Your task to perform on an android device: Open Youtube and go to "Your channel" Image 0: 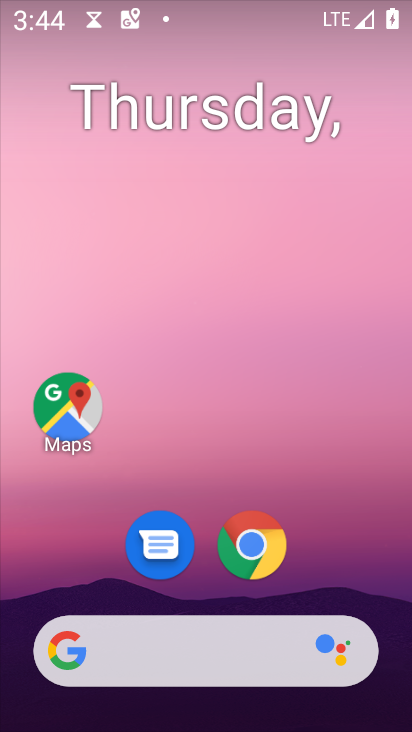
Step 0: drag from (339, 554) to (336, 42)
Your task to perform on an android device: Open Youtube and go to "Your channel" Image 1: 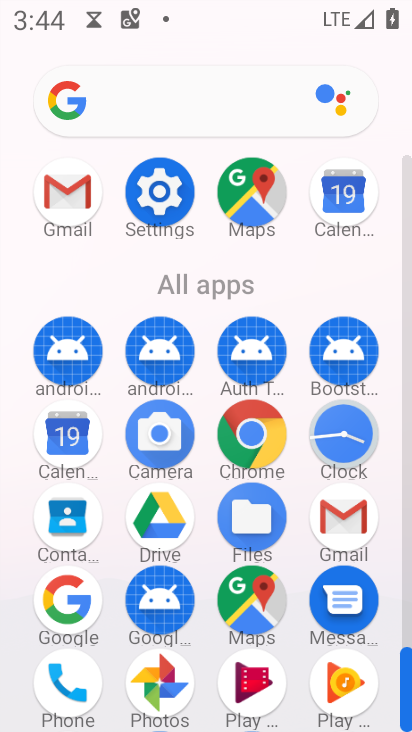
Step 1: drag from (392, 557) to (412, 166)
Your task to perform on an android device: Open Youtube and go to "Your channel" Image 2: 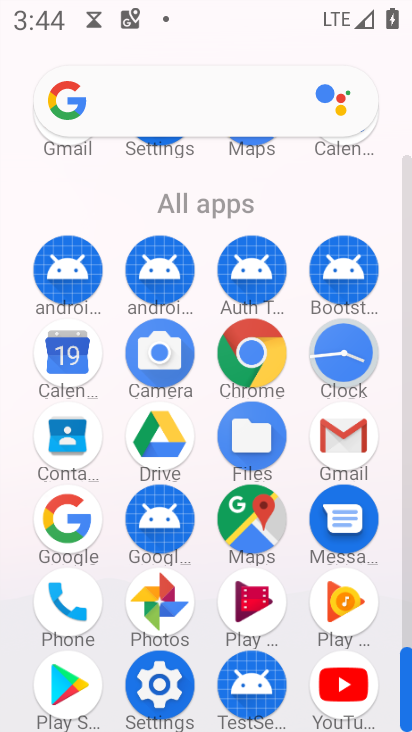
Step 2: click (365, 683)
Your task to perform on an android device: Open Youtube and go to "Your channel" Image 3: 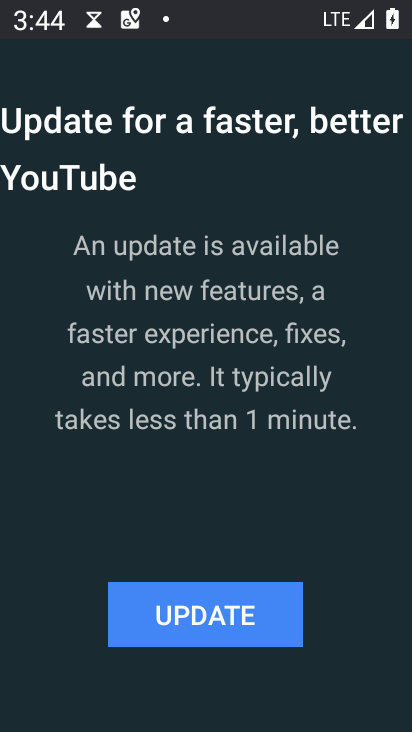
Step 3: click (238, 642)
Your task to perform on an android device: Open Youtube and go to "Your channel" Image 4: 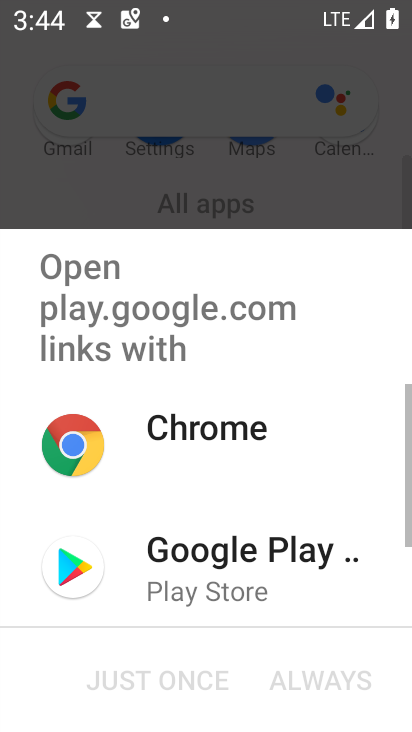
Step 4: click (147, 575)
Your task to perform on an android device: Open Youtube and go to "Your channel" Image 5: 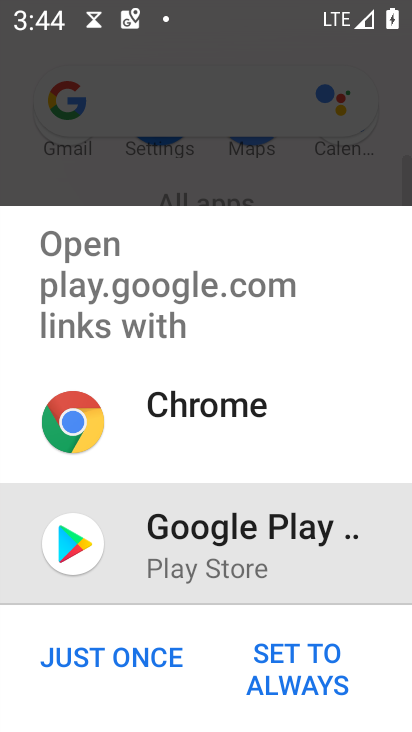
Step 5: click (144, 648)
Your task to perform on an android device: Open Youtube and go to "Your channel" Image 6: 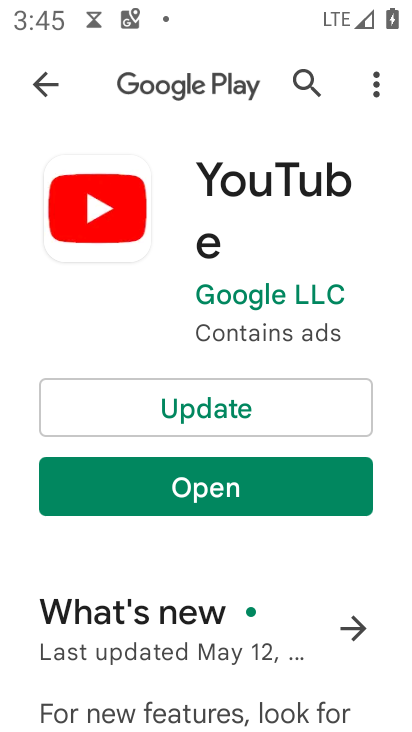
Step 6: click (189, 495)
Your task to perform on an android device: Open Youtube and go to "Your channel" Image 7: 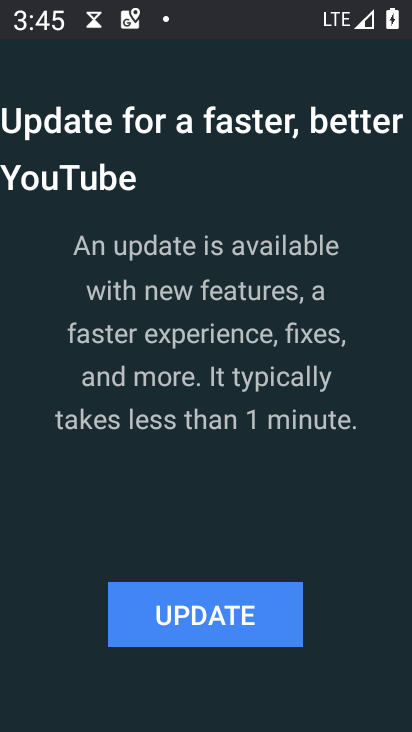
Step 7: click (207, 624)
Your task to perform on an android device: Open Youtube and go to "Your channel" Image 8: 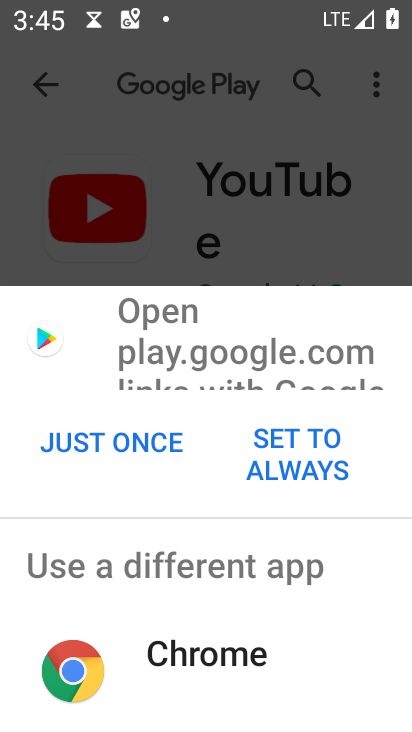
Step 8: click (116, 464)
Your task to perform on an android device: Open Youtube and go to "Your channel" Image 9: 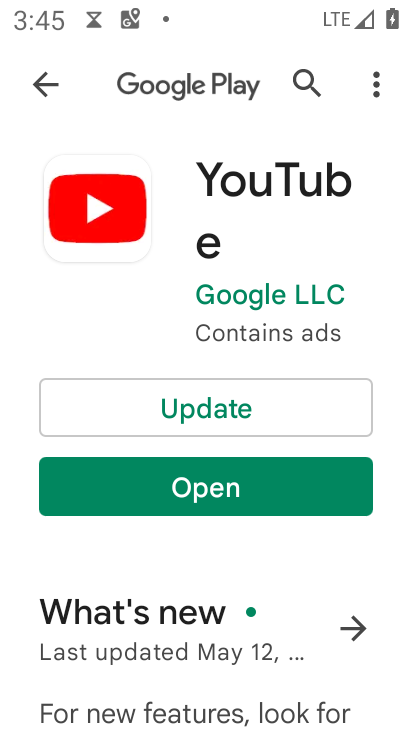
Step 9: click (211, 494)
Your task to perform on an android device: Open Youtube and go to "Your channel" Image 10: 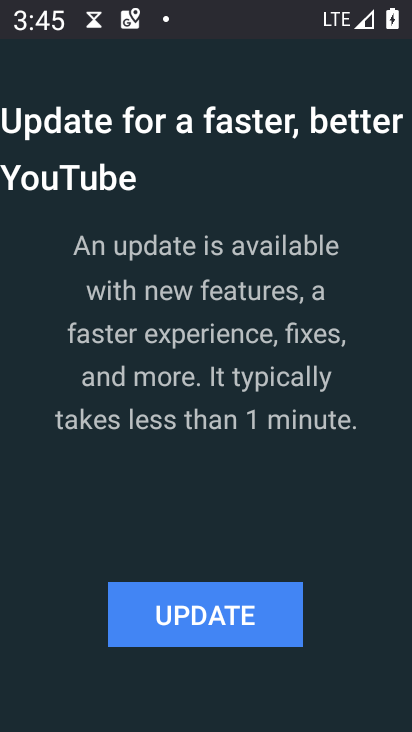
Step 10: click (214, 630)
Your task to perform on an android device: Open Youtube and go to "Your channel" Image 11: 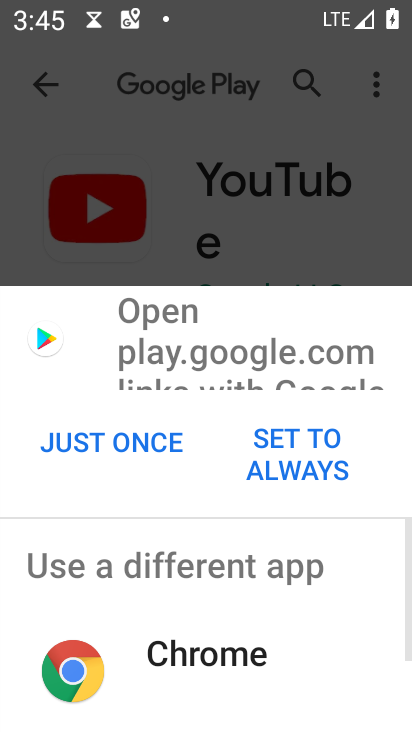
Step 11: click (129, 449)
Your task to perform on an android device: Open Youtube and go to "Your channel" Image 12: 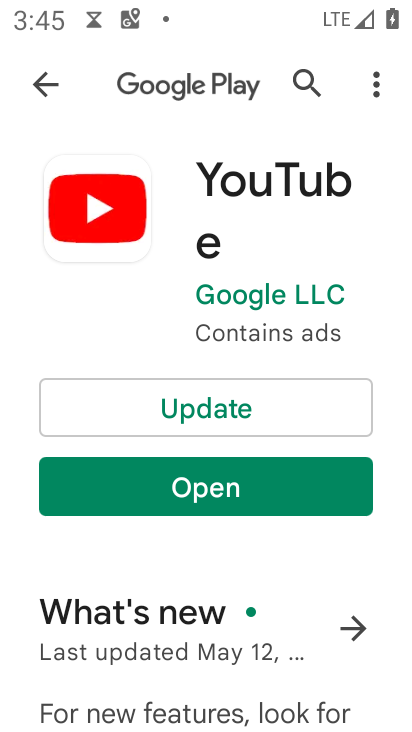
Step 12: click (157, 408)
Your task to perform on an android device: Open Youtube and go to "Your channel" Image 13: 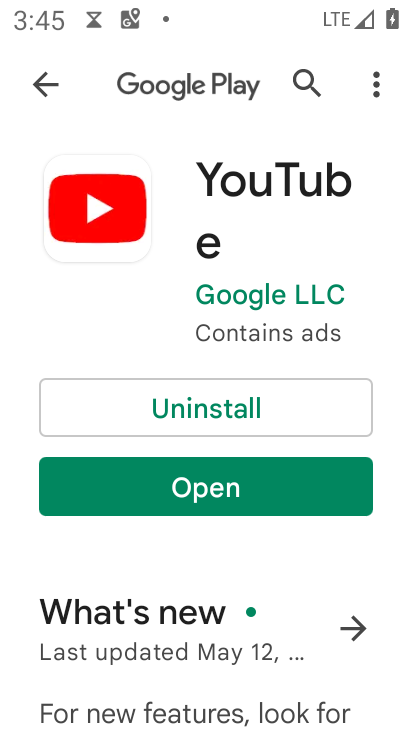
Step 13: click (208, 483)
Your task to perform on an android device: Open Youtube and go to "Your channel" Image 14: 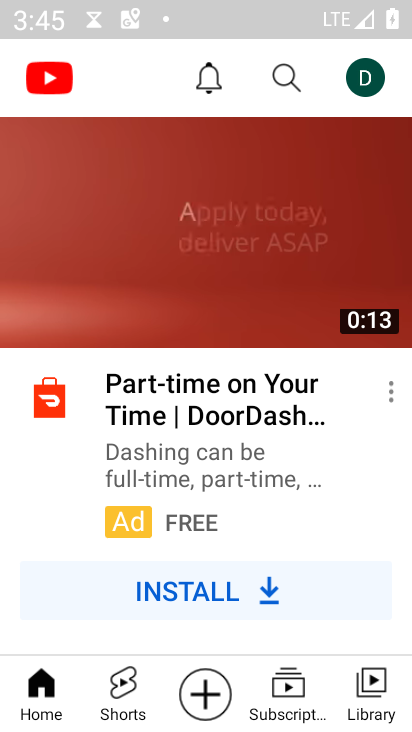
Step 14: drag from (172, 506) to (242, 182)
Your task to perform on an android device: Open Youtube and go to "Your channel" Image 15: 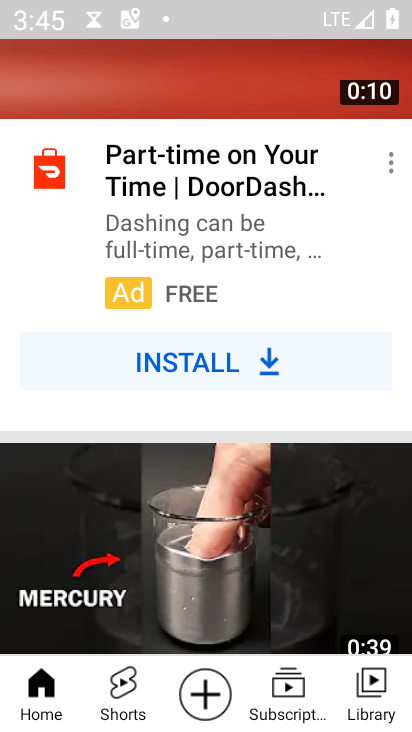
Step 15: drag from (346, 246) to (372, 582)
Your task to perform on an android device: Open Youtube and go to "Your channel" Image 16: 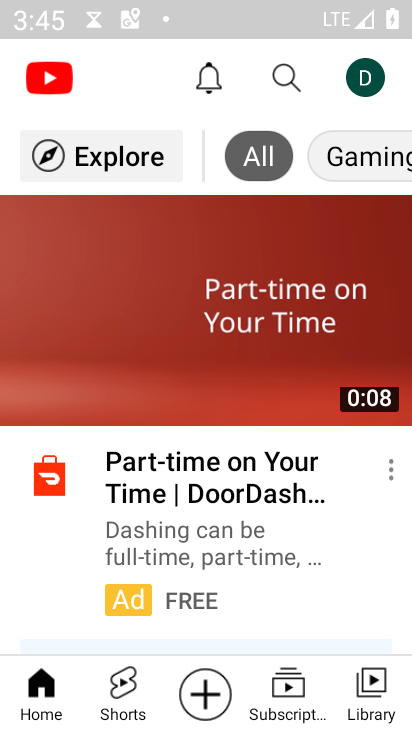
Step 16: click (373, 65)
Your task to perform on an android device: Open Youtube and go to "Your channel" Image 17: 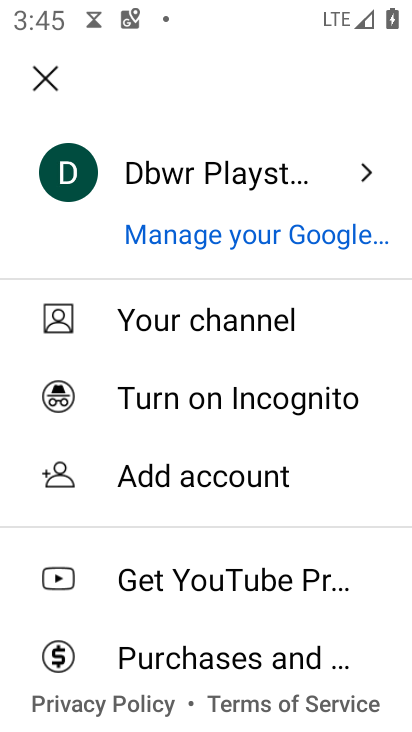
Step 17: click (167, 296)
Your task to perform on an android device: Open Youtube and go to "Your channel" Image 18: 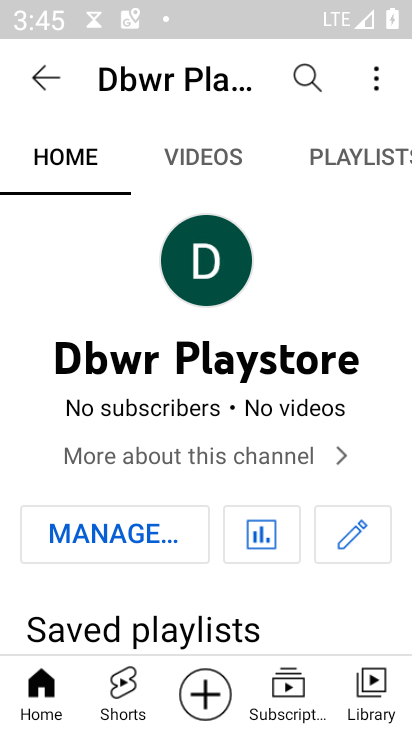
Step 18: task complete